Your task to perform on an android device: Clear the cart on walmart.com. Add asus zenbook to the cart on walmart.com, then select checkout. Image 0: 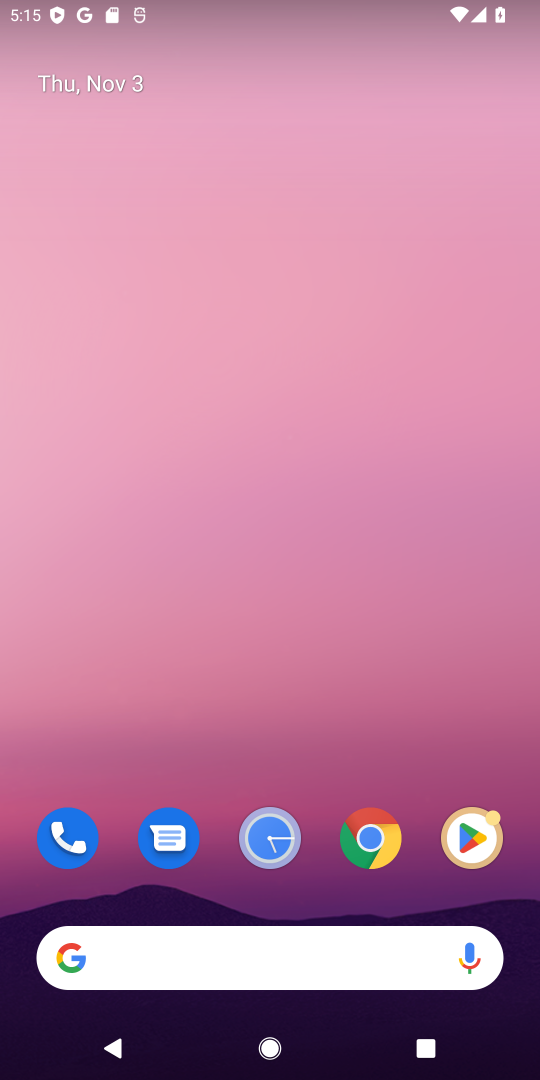
Step 0: press home button
Your task to perform on an android device: Clear the cart on walmart.com. Add asus zenbook to the cart on walmart.com, then select checkout. Image 1: 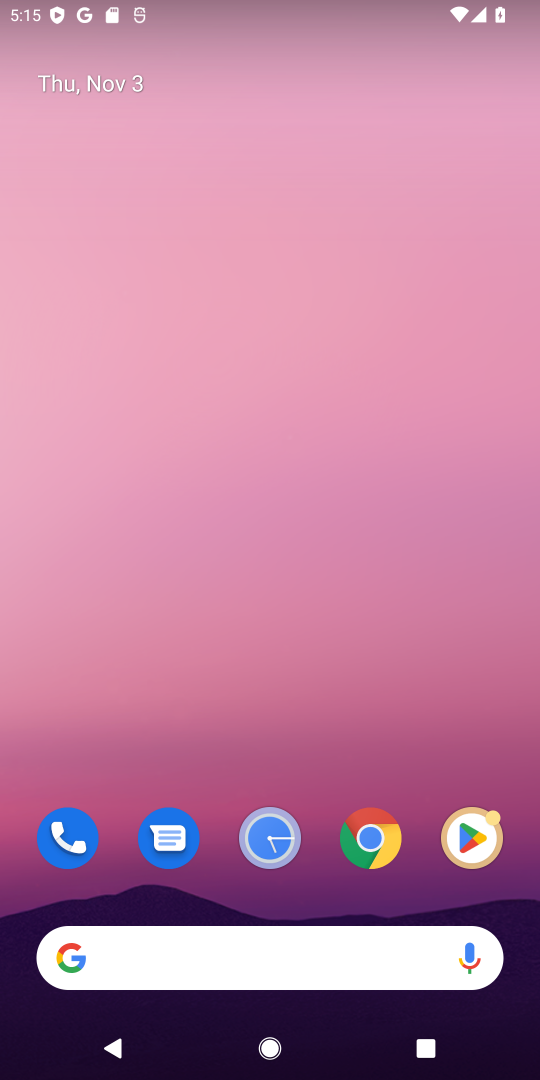
Step 1: drag from (234, 870) to (265, 144)
Your task to perform on an android device: Clear the cart on walmart.com. Add asus zenbook to the cart on walmart.com, then select checkout. Image 2: 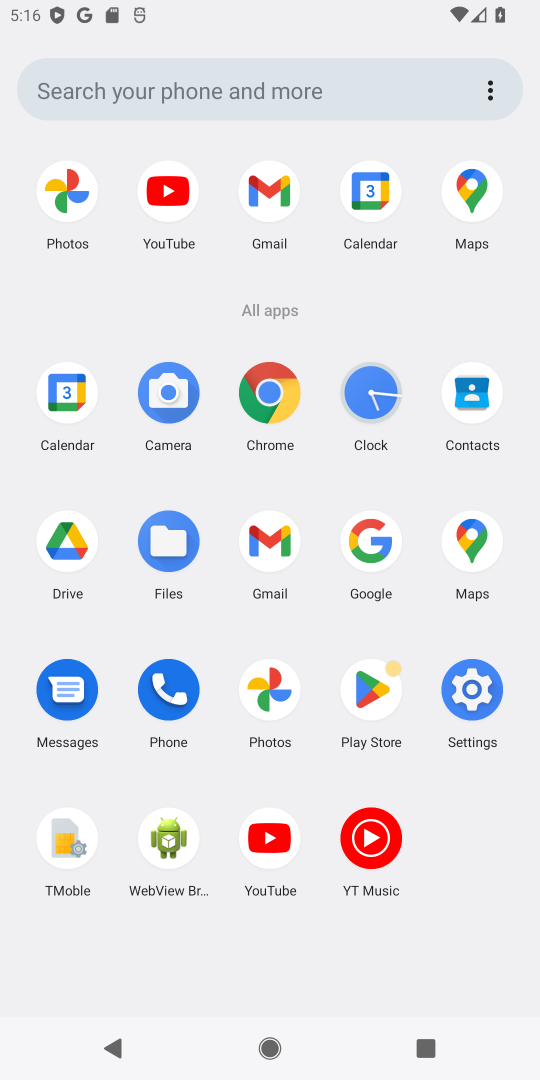
Step 2: click (381, 538)
Your task to perform on an android device: Clear the cart on walmart.com. Add asus zenbook to the cart on walmart.com, then select checkout. Image 3: 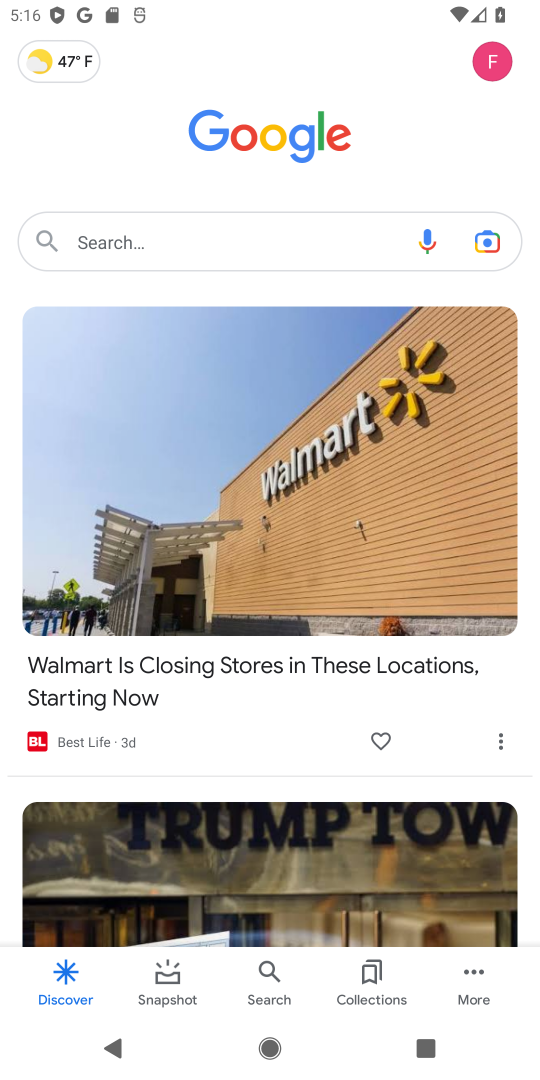
Step 3: click (281, 225)
Your task to perform on an android device: Clear the cart on walmart.com. Add asus zenbook to the cart on walmart.com, then select checkout. Image 4: 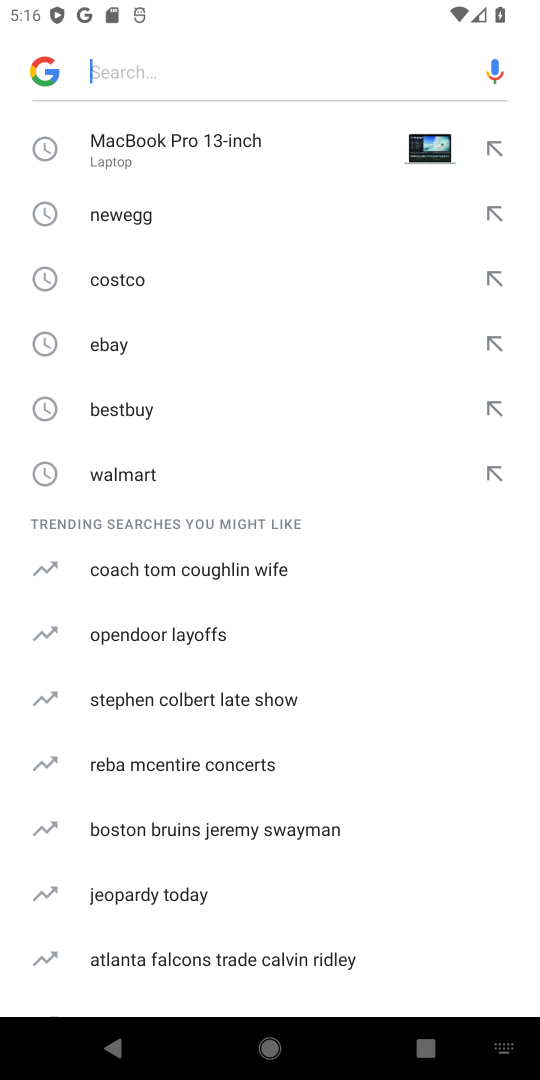
Step 4: type "walmart"
Your task to perform on an android device: Clear the cart on walmart.com. Add asus zenbook to the cart on walmart.com, then select checkout. Image 5: 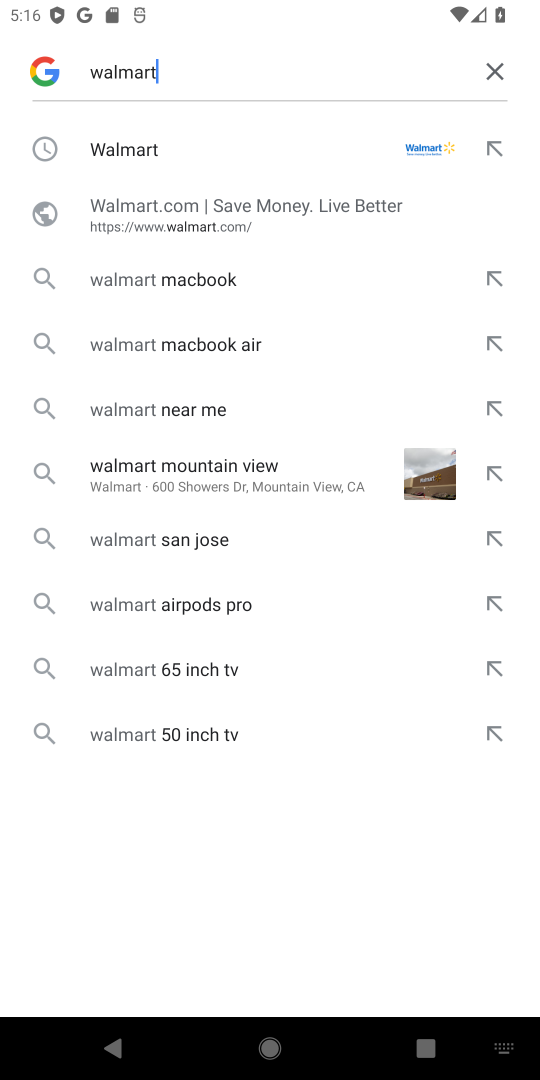
Step 5: click (364, 142)
Your task to perform on an android device: Clear the cart on walmart.com. Add asus zenbook to the cart on walmart.com, then select checkout. Image 6: 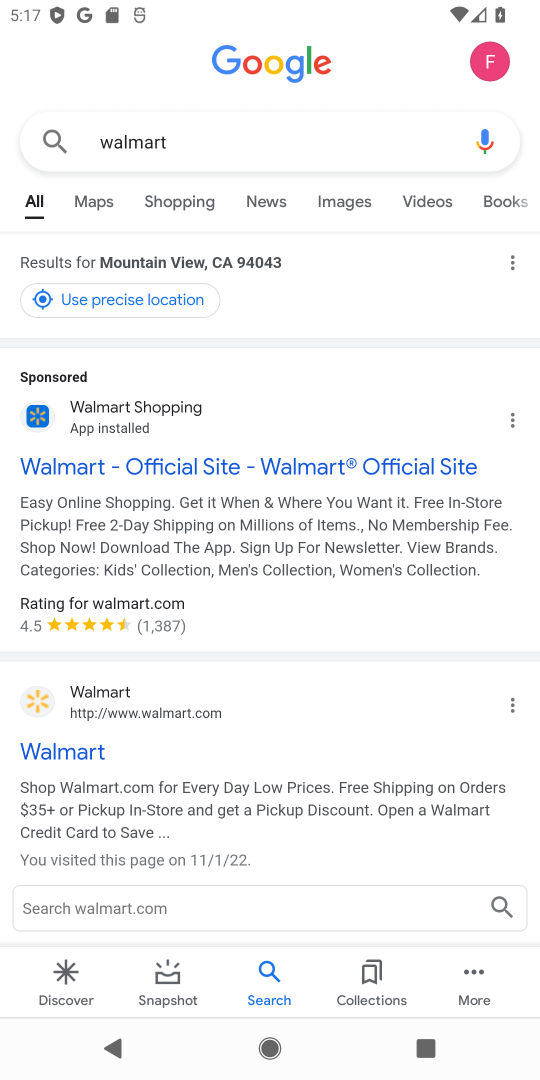
Step 6: click (91, 721)
Your task to perform on an android device: Clear the cart on walmart.com. Add asus zenbook to the cart on walmart.com, then select checkout. Image 7: 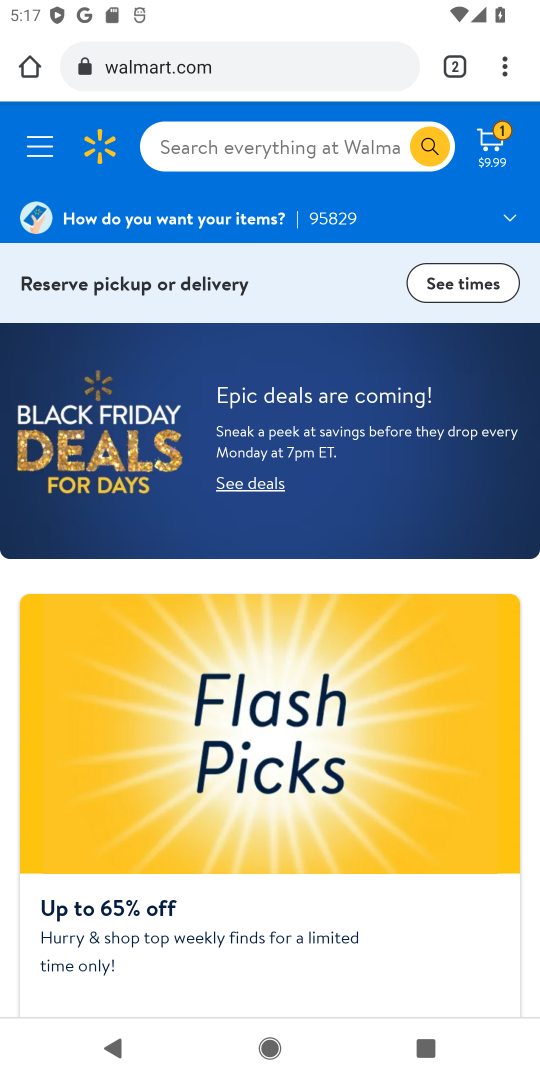
Step 7: click (265, 131)
Your task to perform on an android device: Clear the cart on walmart.com. Add asus zenbook to the cart on walmart.com, then select checkout. Image 8: 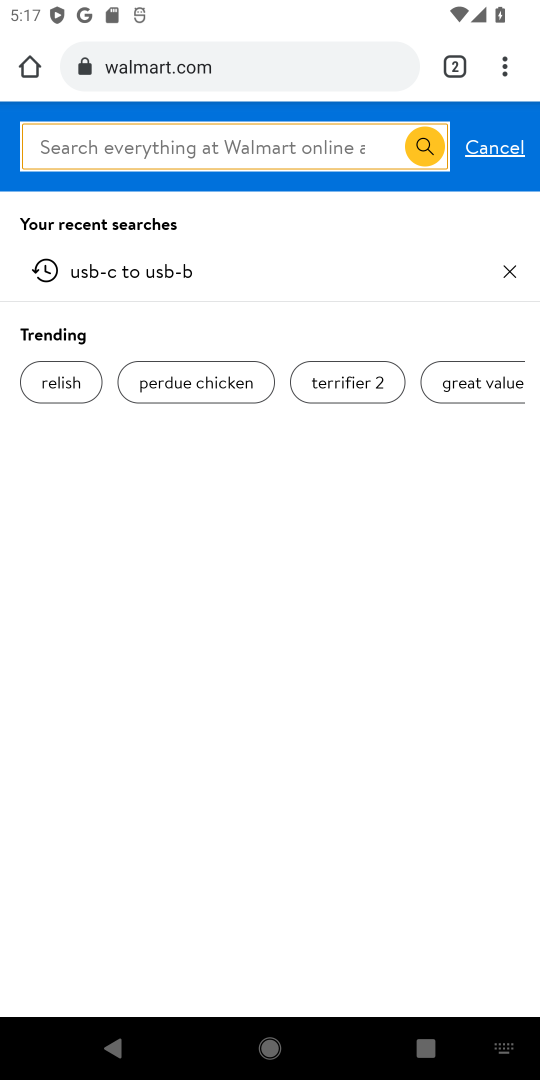
Step 8: type "asus zenbook"
Your task to perform on an android device: Clear the cart on walmart.com. Add asus zenbook to the cart on walmart.com, then select checkout. Image 9: 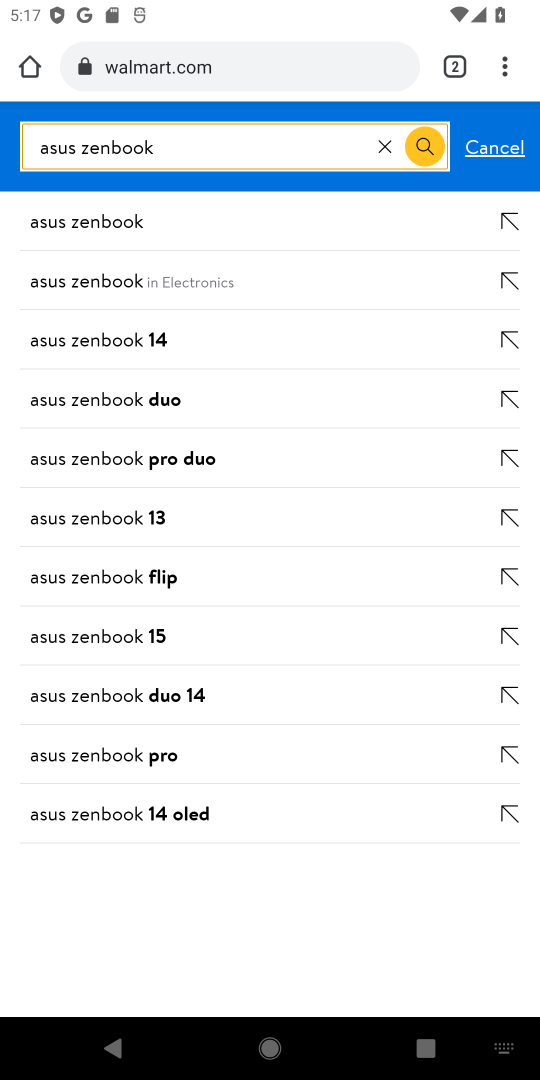
Step 9: click (120, 230)
Your task to perform on an android device: Clear the cart on walmart.com. Add asus zenbook to the cart on walmart.com, then select checkout. Image 10: 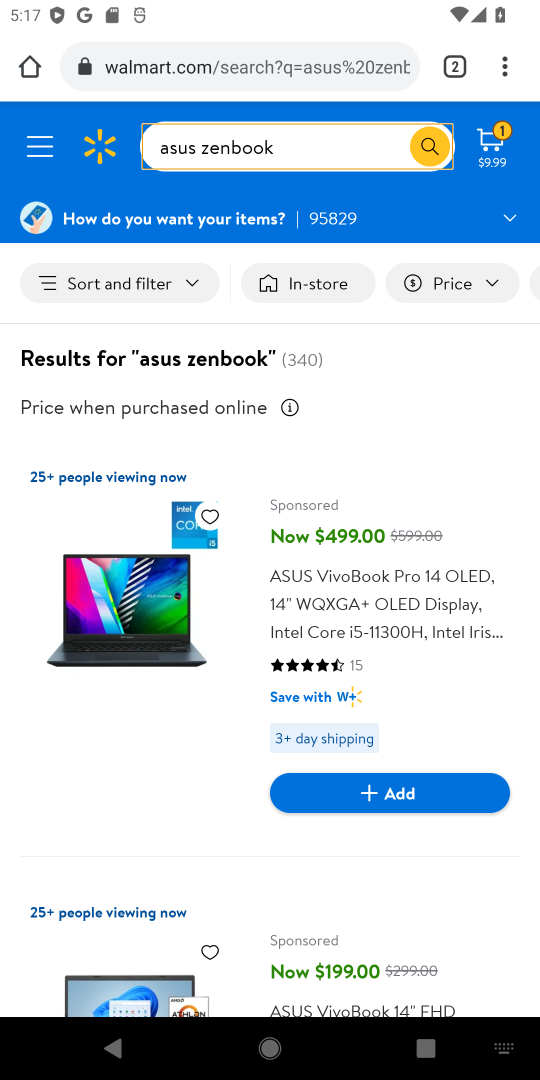
Step 10: click (382, 792)
Your task to perform on an android device: Clear the cart on walmart.com. Add asus zenbook to the cart on walmart.com, then select checkout. Image 11: 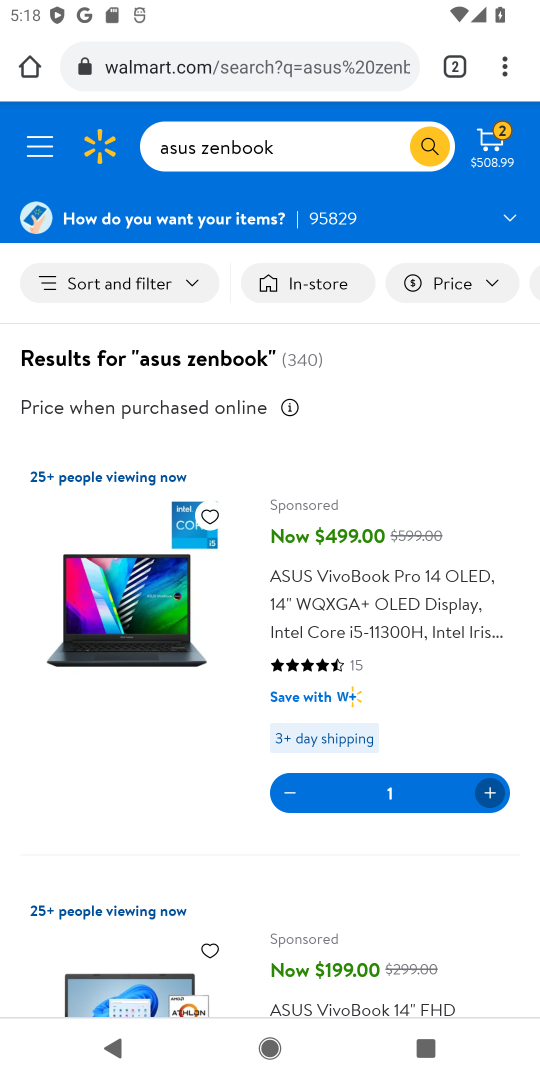
Step 11: click (493, 142)
Your task to perform on an android device: Clear the cart on walmart.com. Add asus zenbook to the cart on walmart.com, then select checkout. Image 12: 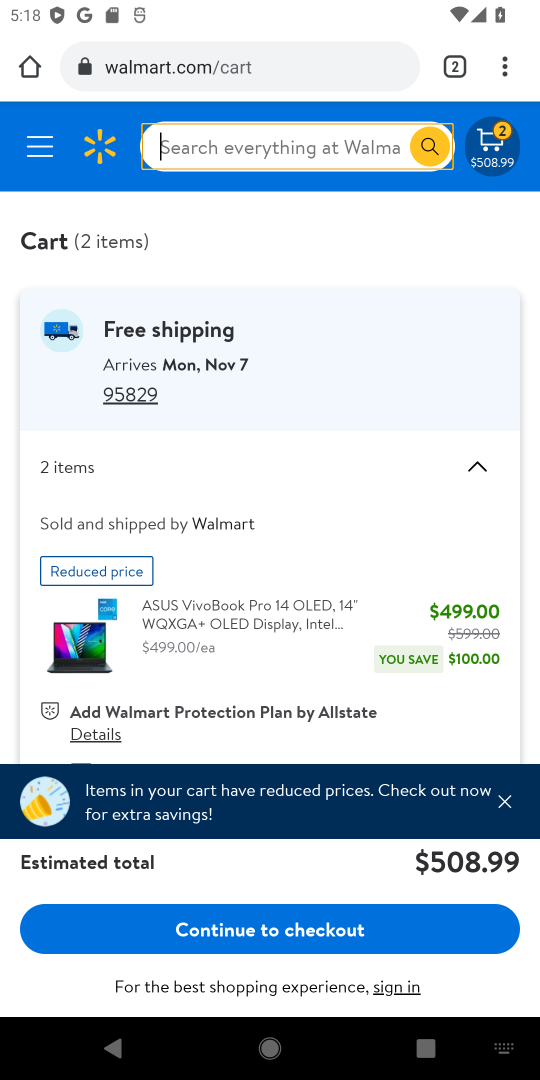
Step 12: click (293, 573)
Your task to perform on an android device: Clear the cart on walmart.com. Add asus zenbook to the cart on walmart.com, then select checkout. Image 13: 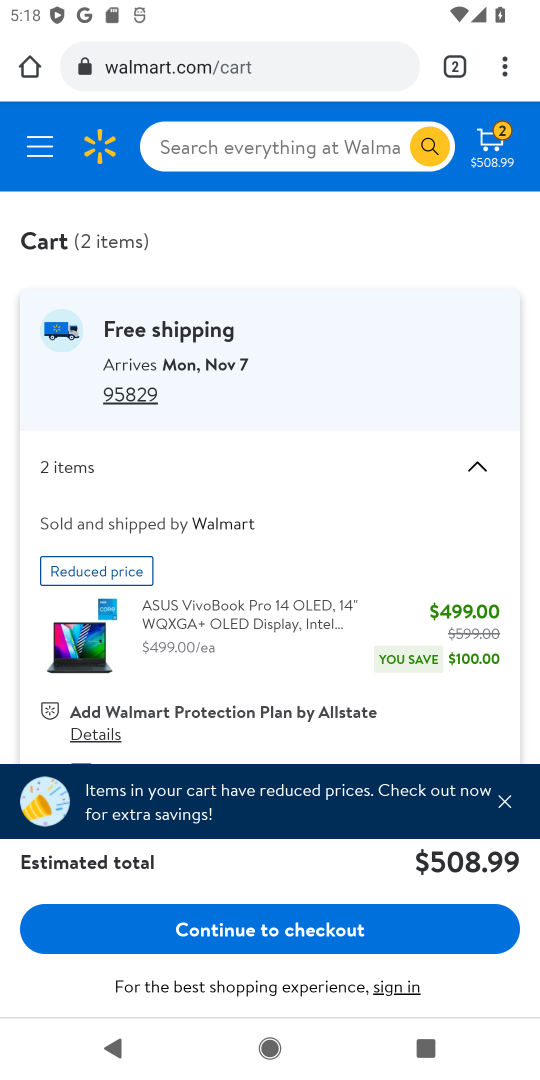
Step 13: click (493, 805)
Your task to perform on an android device: Clear the cart on walmart.com. Add asus zenbook to the cart on walmart.com, then select checkout. Image 14: 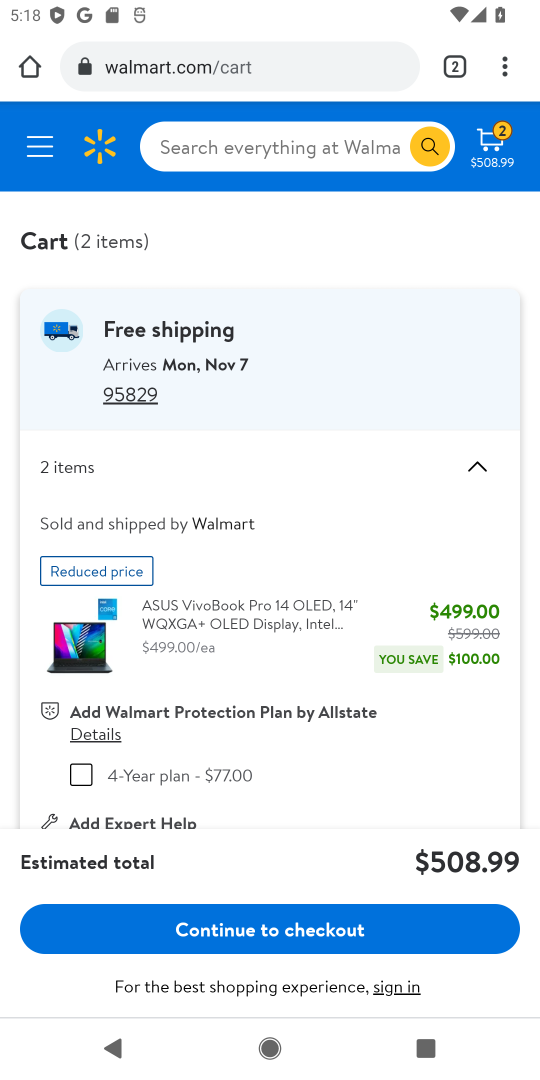
Step 14: click (269, 776)
Your task to perform on an android device: Clear the cart on walmart.com. Add asus zenbook to the cart on walmart.com, then select checkout. Image 15: 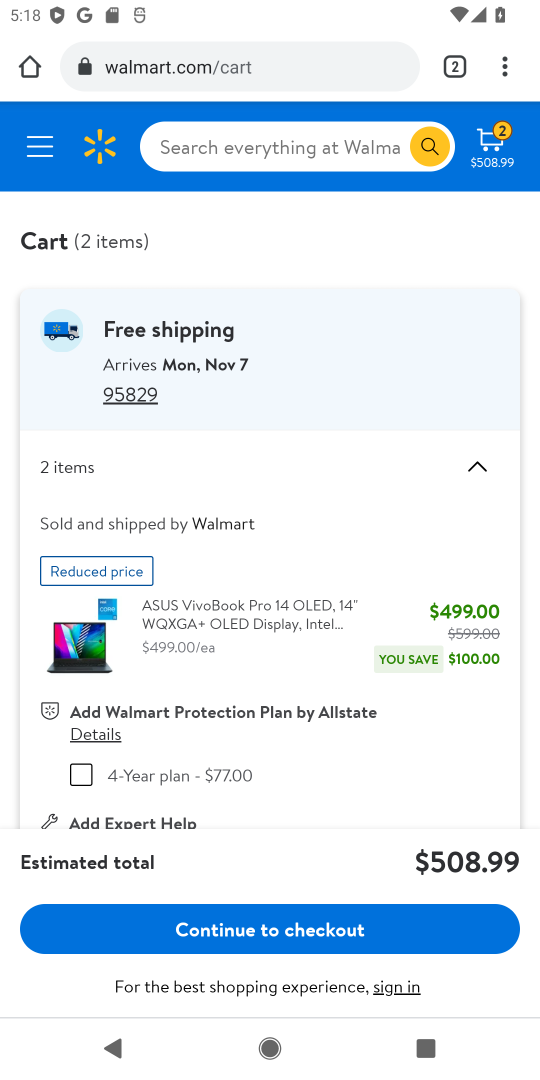
Step 15: drag from (252, 690) to (252, 573)
Your task to perform on an android device: Clear the cart on walmart.com. Add asus zenbook to the cart on walmart.com, then select checkout. Image 16: 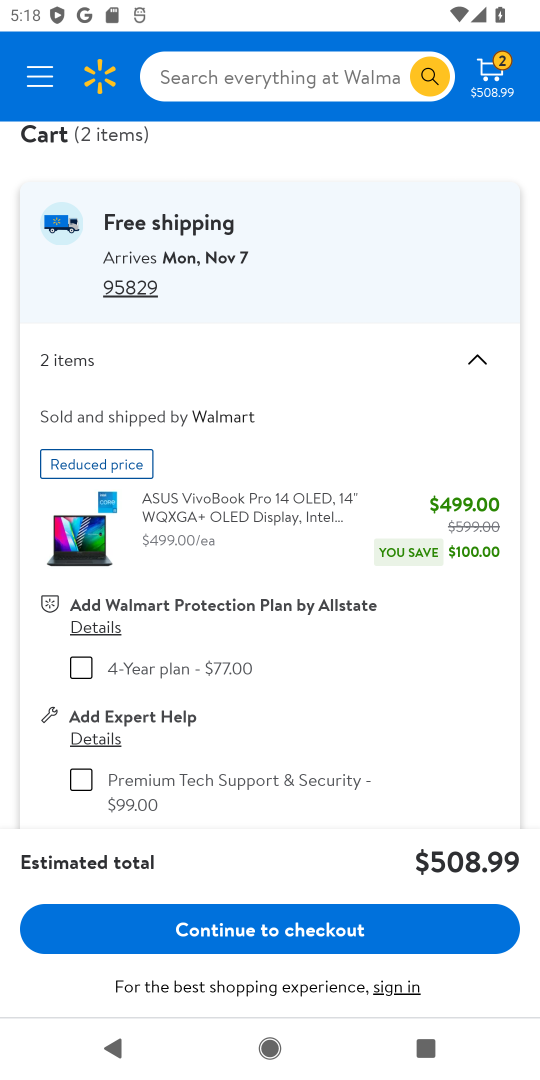
Step 16: drag from (331, 696) to (331, 507)
Your task to perform on an android device: Clear the cart on walmart.com. Add asus zenbook to the cart on walmart.com, then select checkout. Image 17: 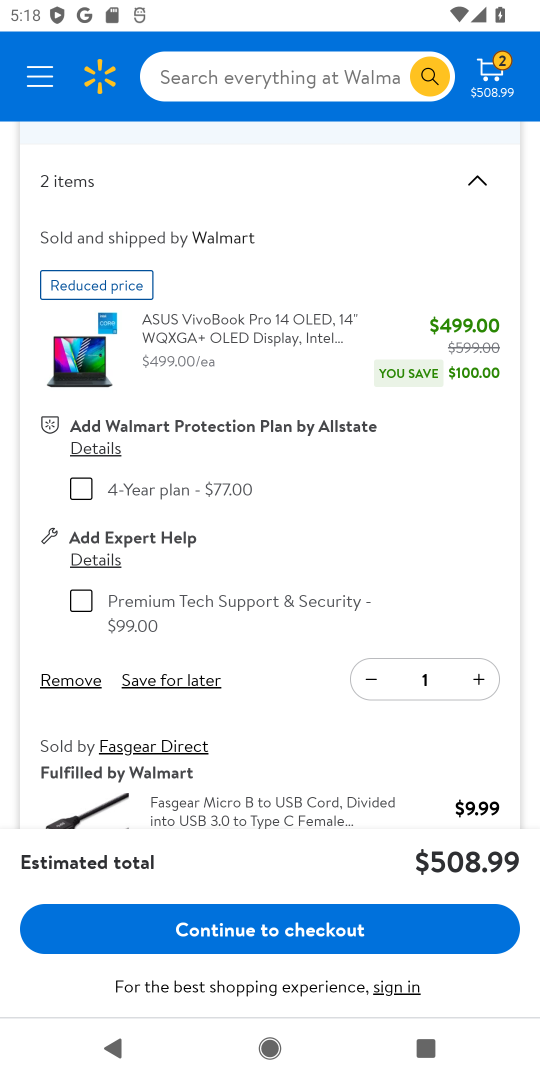
Step 17: click (69, 678)
Your task to perform on an android device: Clear the cart on walmart.com. Add asus zenbook to the cart on walmart.com, then select checkout. Image 18: 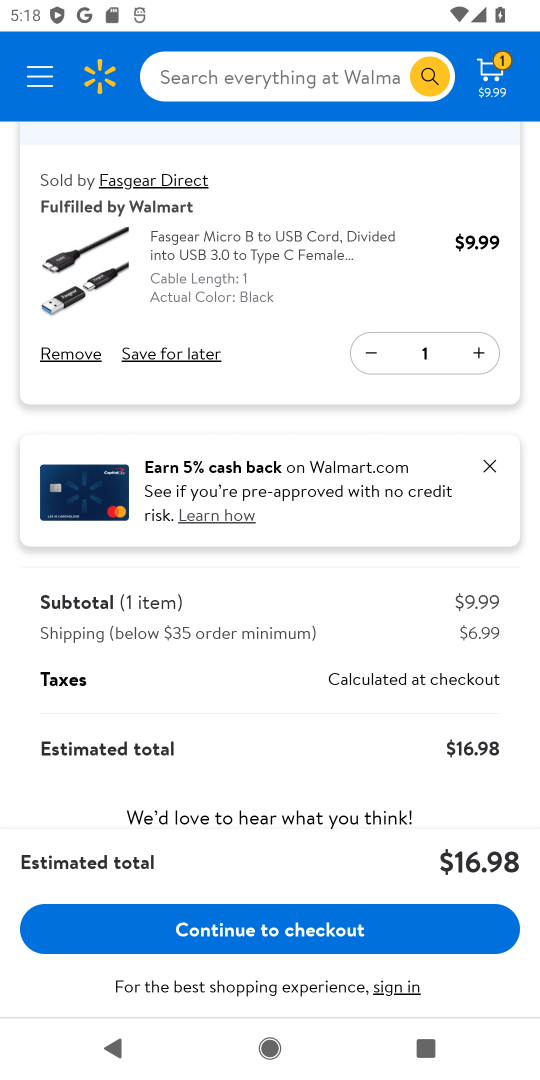
Step 18: click (84, 352)
Your task to perform on an android device: Clear the cart on walmart.com. Add asus zenbook to the cart on walmart.com, then select checkout. Image 19: 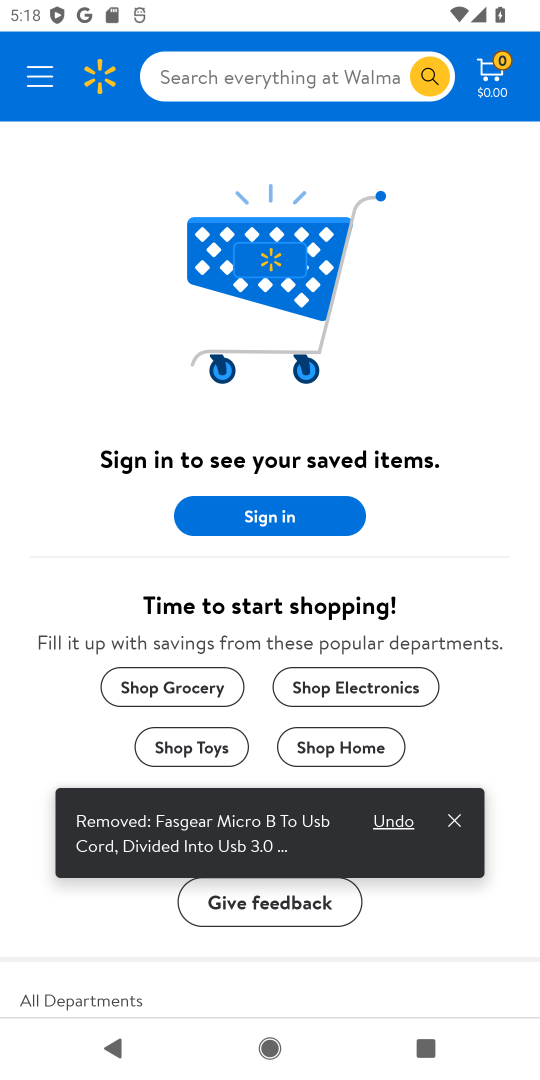
Step 19: press back button
Your task to perform on an android device: Clear the cart on walmart.com. Add asus zenbook to the cart on walmart.com, then select checkout. Image 20: 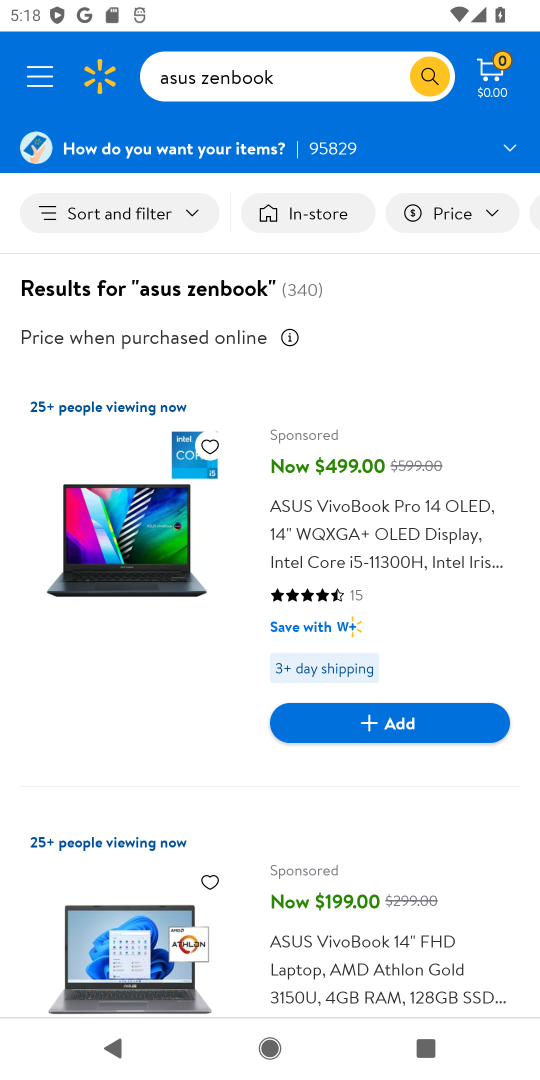
Step 20: click (400, 724)
Your task to perform on an android device: Clear the cart on walmart.com. Add asus zenbook to the cart on walmart.com, then select checkout. Image 21: 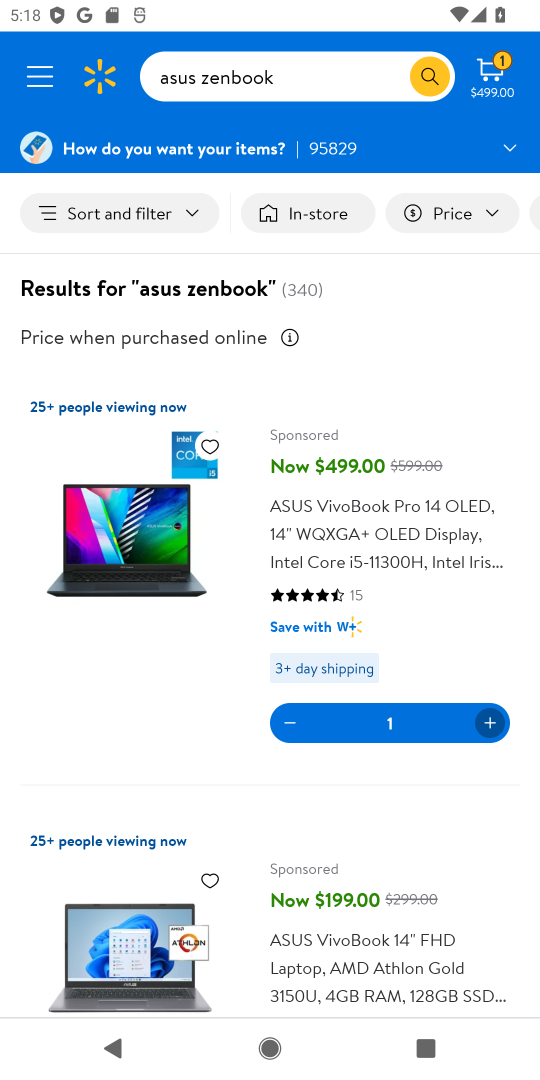
Step 21: click (490, 81)
Your task to perform on an android device: Clear the cart on walmart.com. Add asus zenbook to the cart on walmart.com, then select checkout. Image 22: 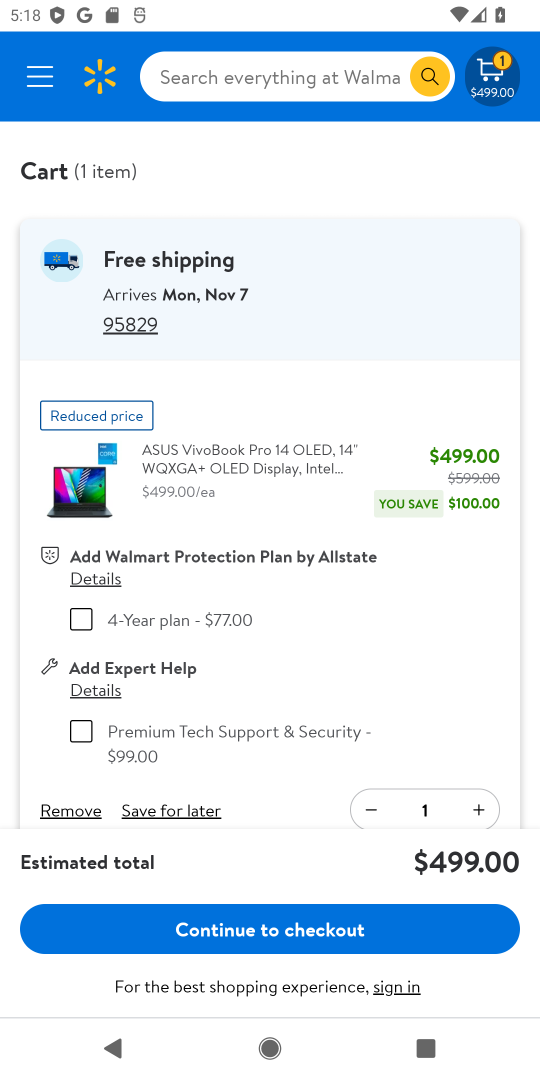
Step 22: click (279, 932)
Your task to perform on an android device: Clear the cart on walmart.com. Add asus zenbook to the cart on walmart.com, then select checkout. Image 23: 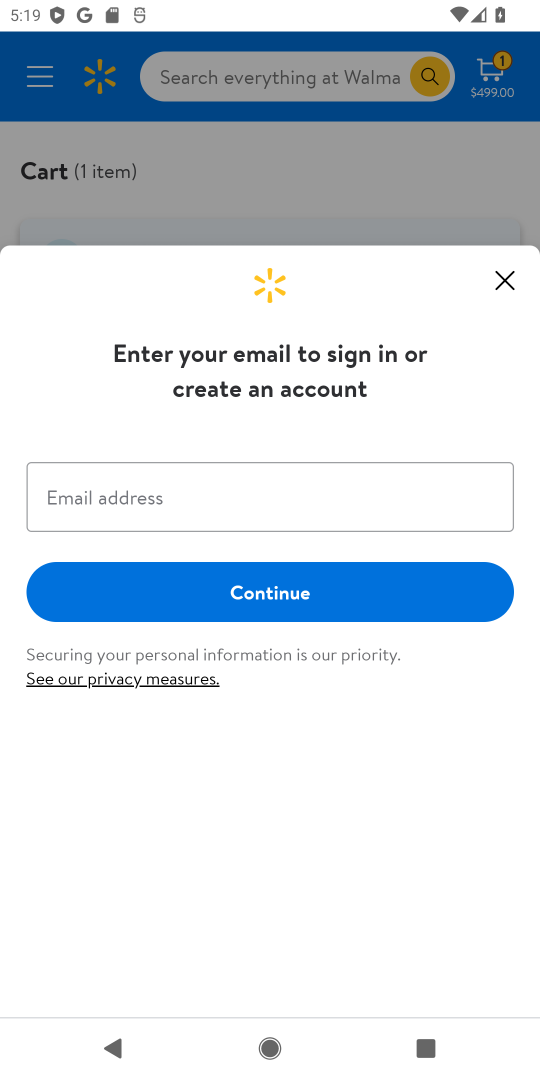
Step 23: task complete